Your task to perform on an android device: open app "LiveIn - Share Your Moment" (install if not already installed) Image 0: 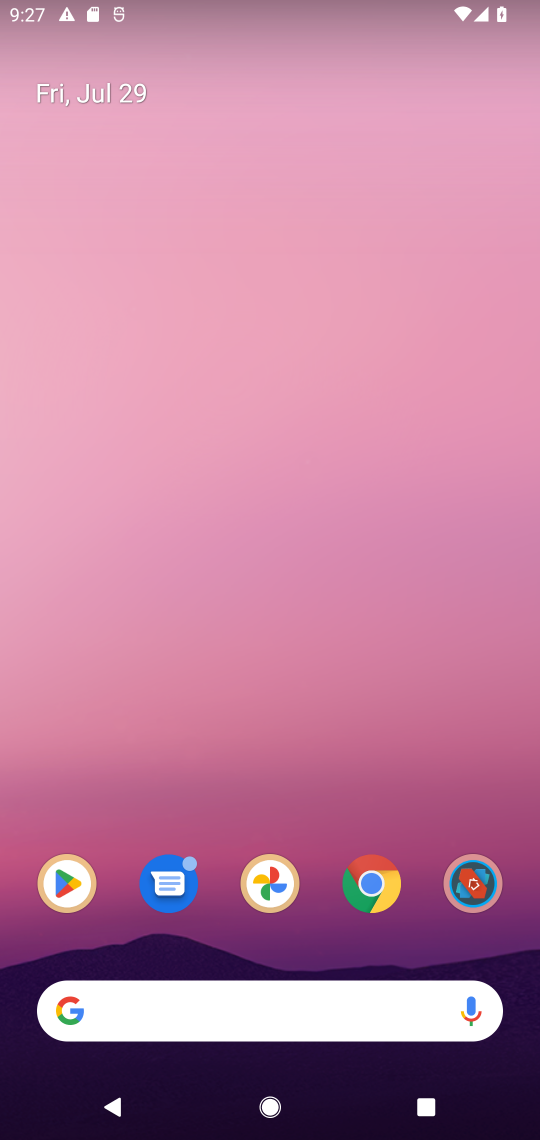
Step 0: click (84, 883)
Your task to perform on an android device: open app "LiveIn - Share Your Moment" (install if not already installed) Image 1: 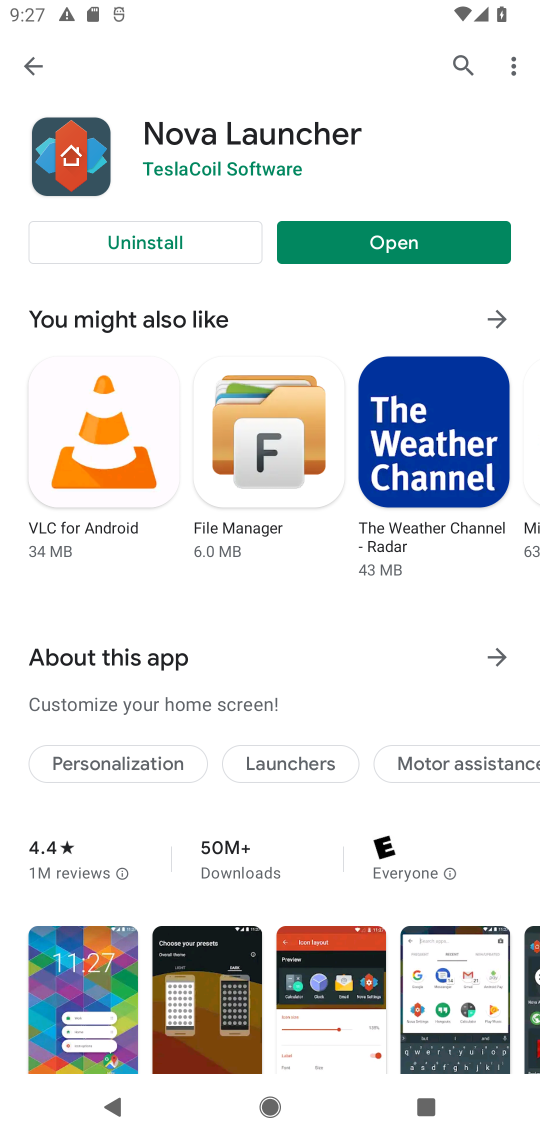
Step 1: click (31, 60)
Your task to perform on an android device: open app "LiveIn - Share Your Moment" (install if not already installed) Image 2: 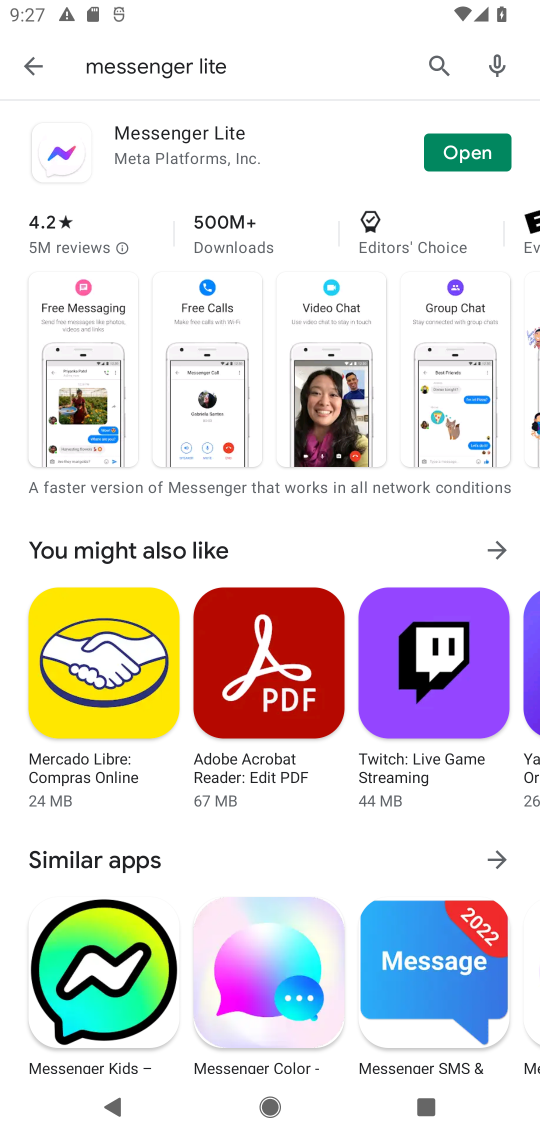
Step 2: click (206, 68)
Your task to perform on an android device: open app "LiveIn - Share Your Moment" (install if not already installed) Image 3: 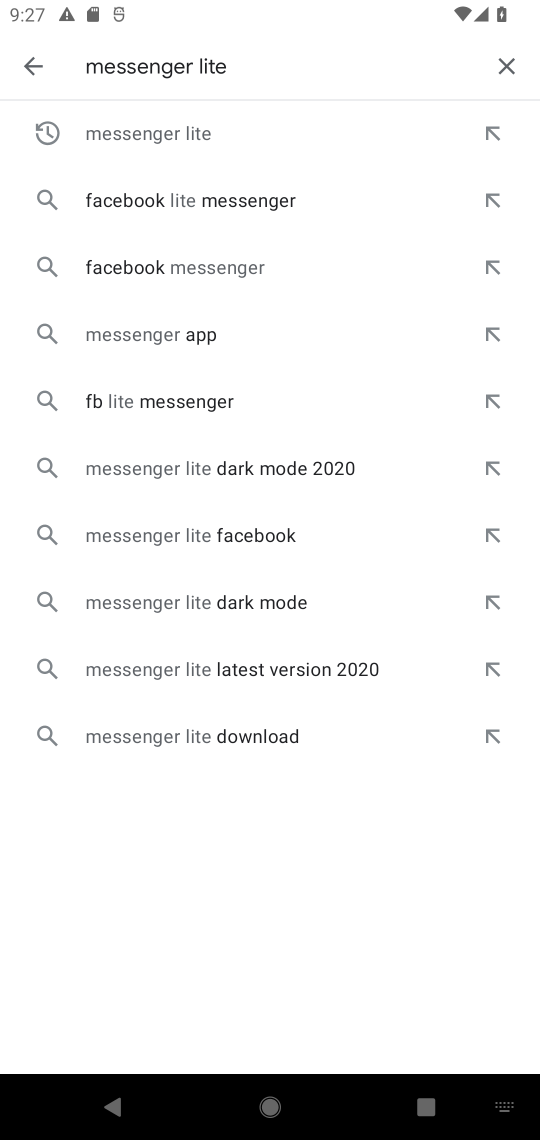
Step 3: click (504, 59)
Your task to perform on an android device: open app "LiveIn - Share Your Moment" (install if not already installed) Image 4: 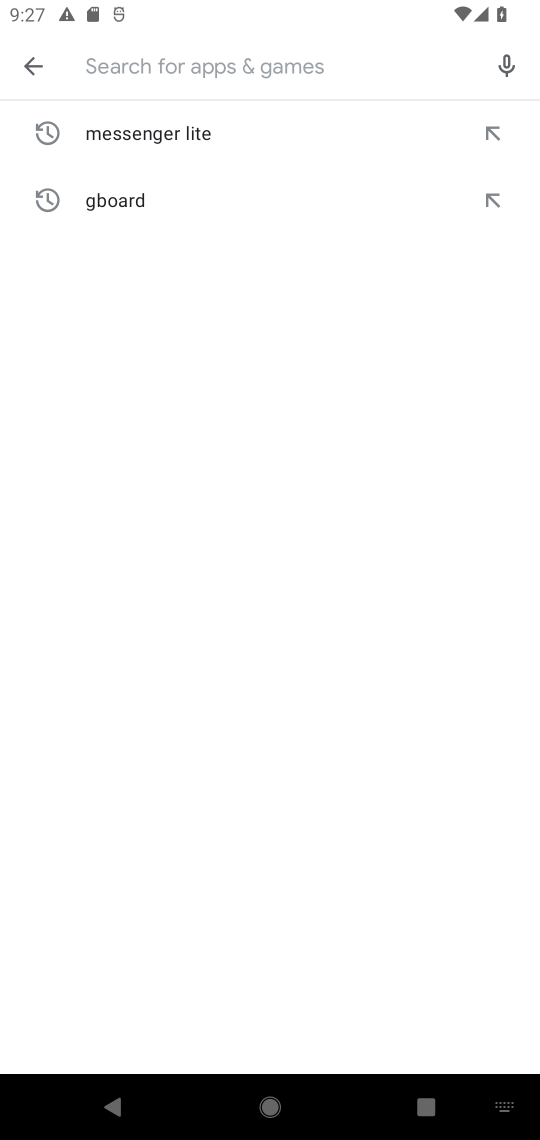
Step 4: type "LiveIn"
Your task to perform on an android device: open app "LiveIn - Share Your Moment" (install if not already installed) Image 5: 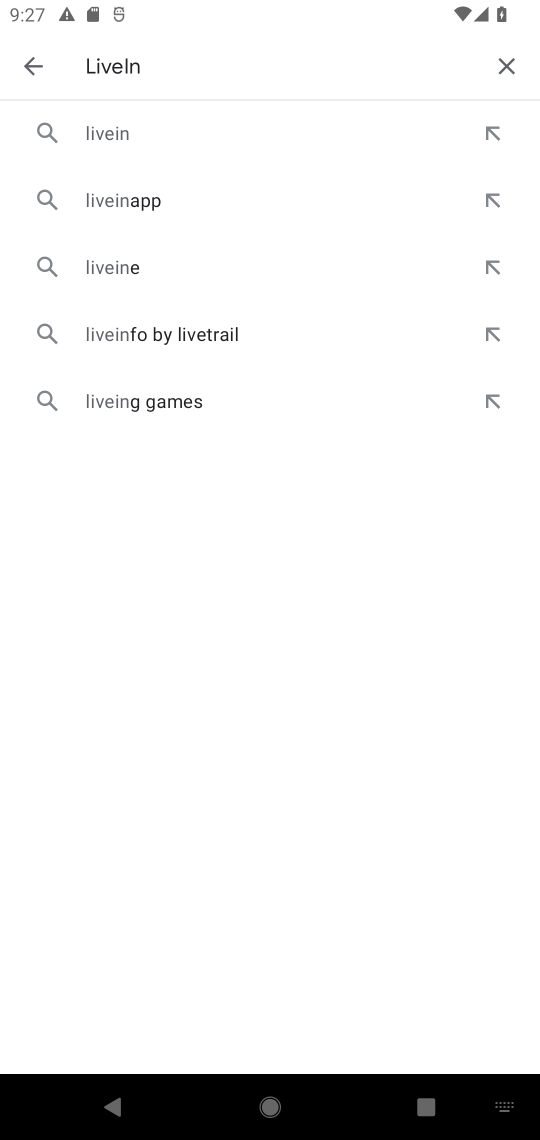
Step 5: click (132, 141)
Your task to perform on an android device: open app "LiveIn - Share Your Moment" (install if not already installed) Image 6: 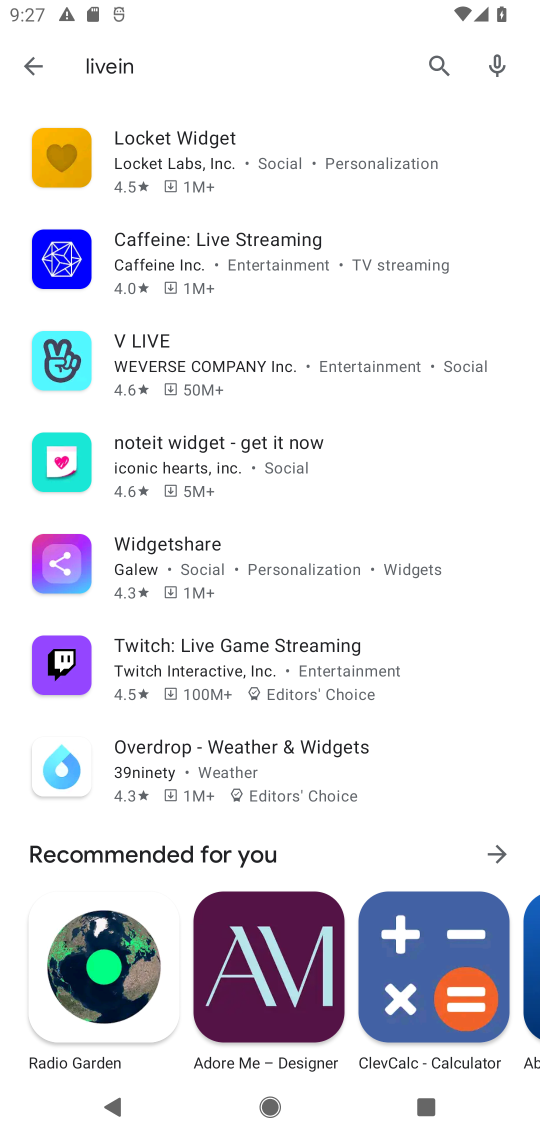
Step 6: task complete